Your task to perform on an android device: When is my next appointment? Image 0: 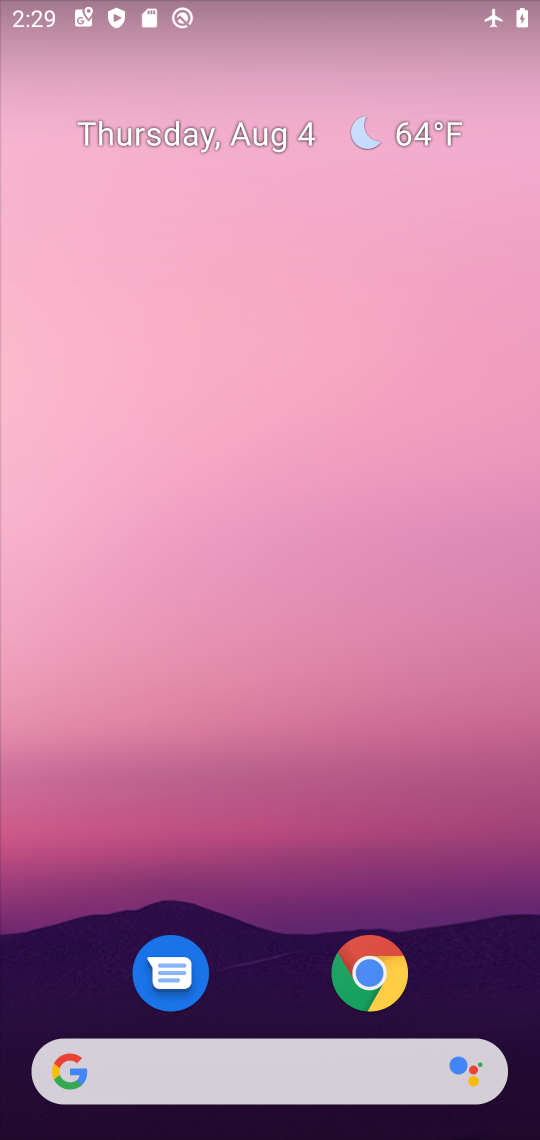
Step 0: drag from (291, 1019) to (236, 99)
Your task to perform on an android device: When is my next appointment? Image 1: 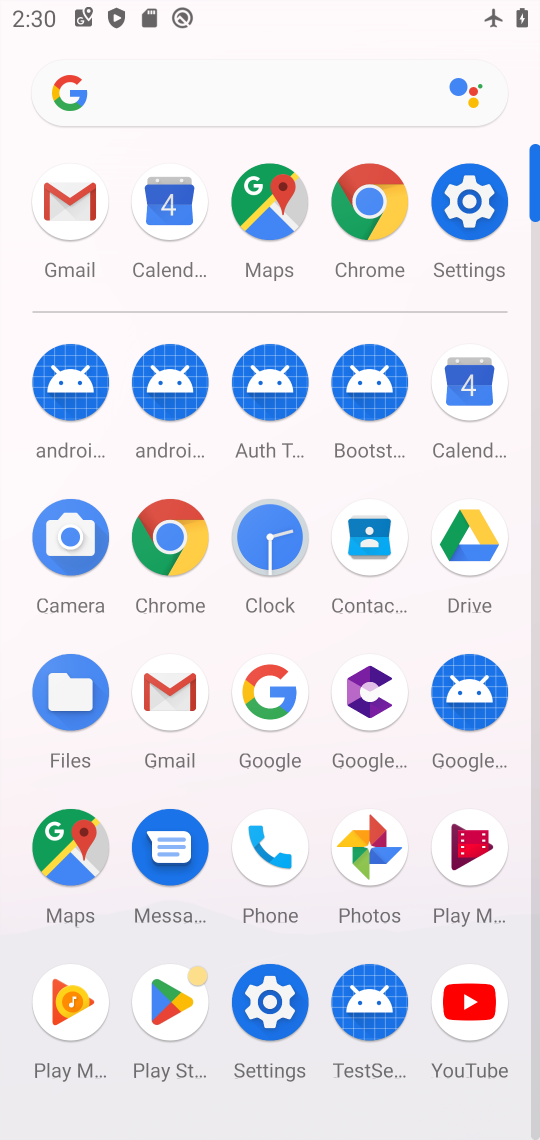
Step 1: click (459, 388)
Your task to perform on an android device: When is my next appointment? Image 2: 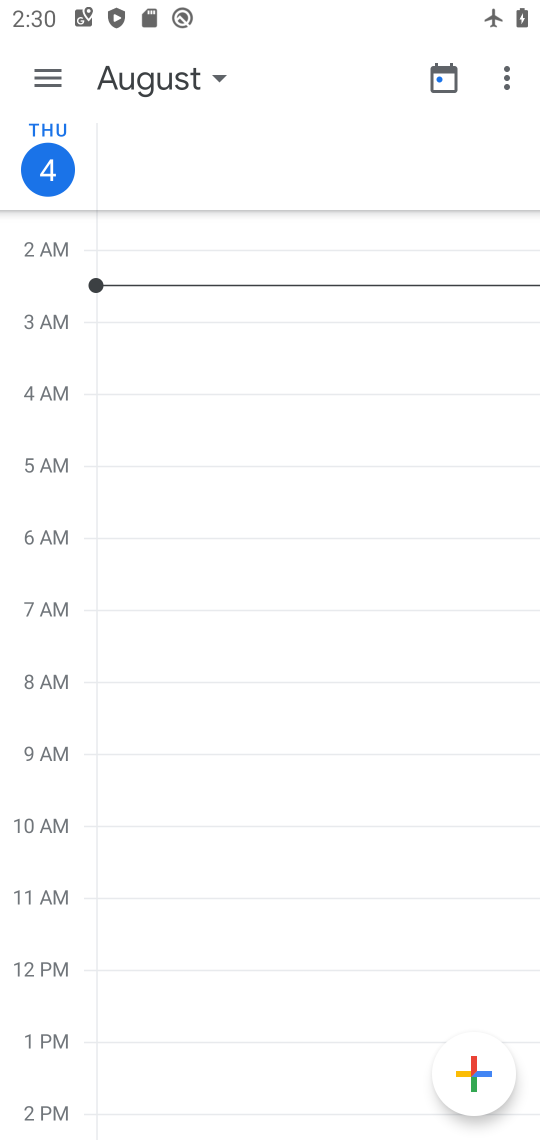
Step 2: click (44, 91)
Your task to perform on an android device: When is my next appointment? Image 3: 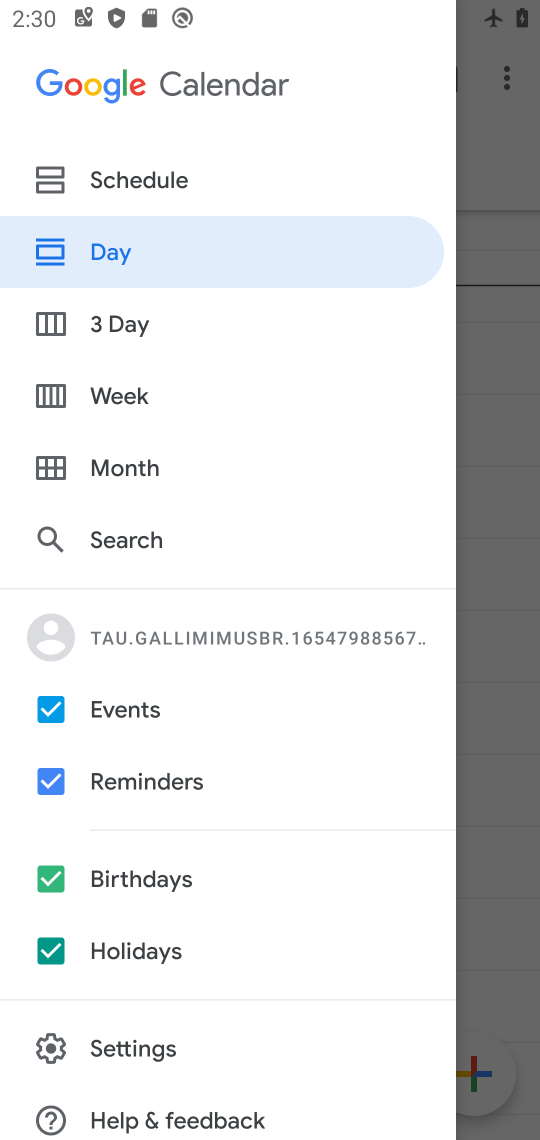
Step 3: task complete